Your task to perform on an android device: Open Youtube and go to "Your channel" Image 0: 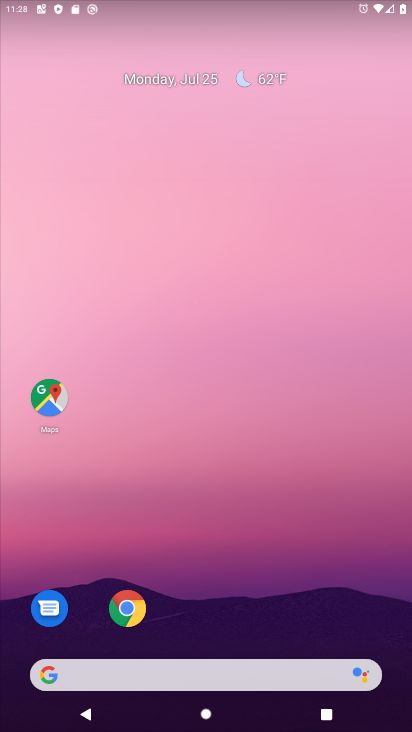
Step 0: drag from (201, 640) to (208, 1)
Your task to perform on an android device: Open Youtube and go to "Your channel" Image 1: 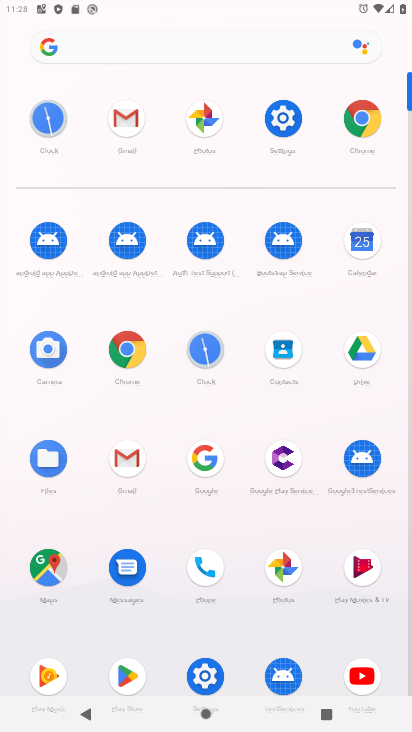
Step 1: click (361, 674)
Your task to perform on an android device: Open Youtube and go to "Your channel" Image 2: 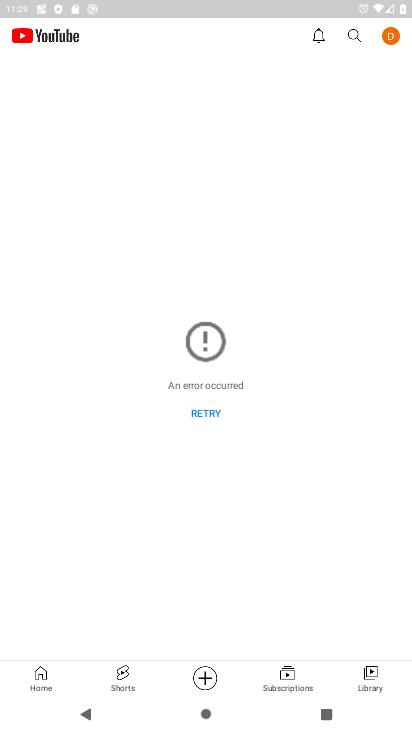
Step 2: click (227, 415)
Your task to perform on an android device: Open Youtube and go to "Your channel" Image 3: 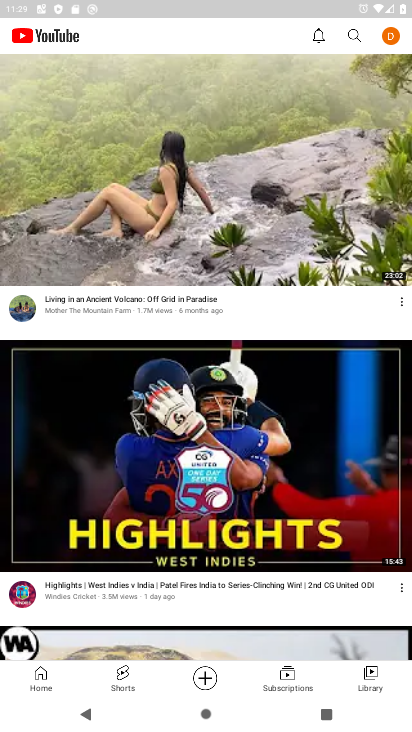
Step 3: click (394, 36)
Your task to perform on an android device: Open Youtube and go to "Your channel" Image 4: 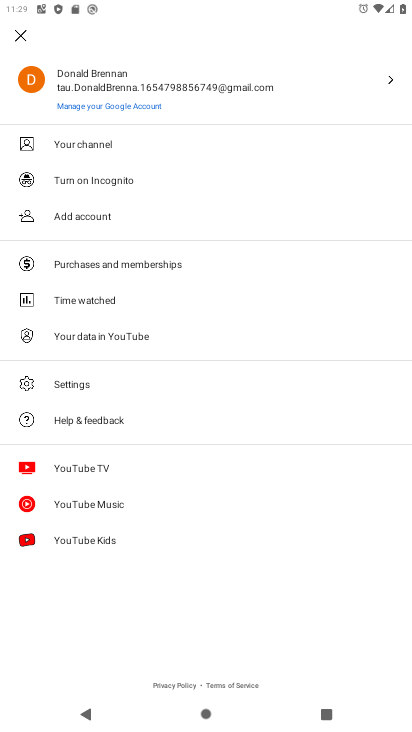
Step 4: click (91, 144)
Your task to perform on an android device: Open Youtube and go to "Your channel" Image 5: 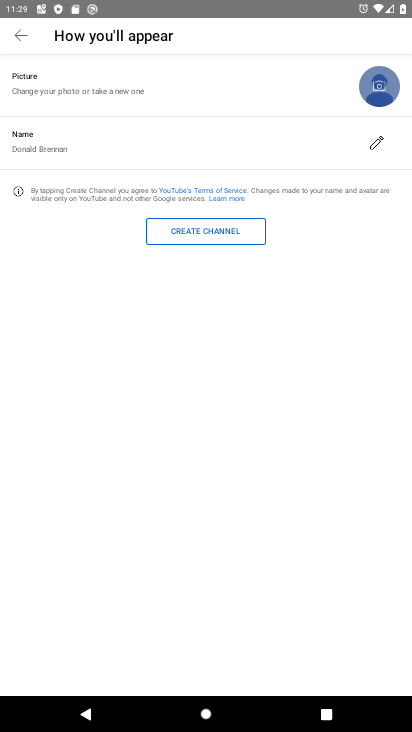
Step 5: task complete